Your task to perform on an android device: allow cookies in the chrome app Image 0: 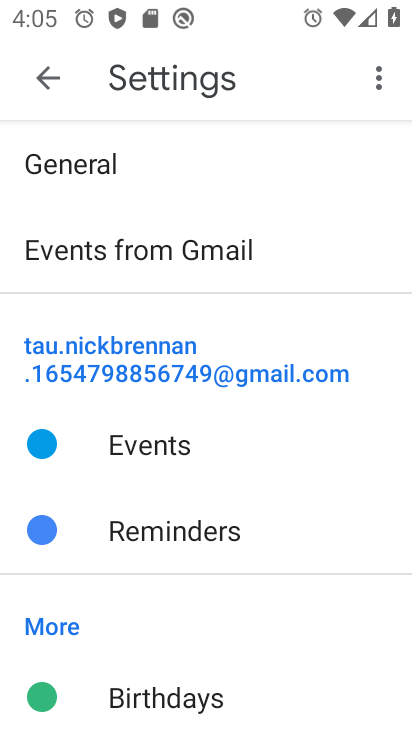
Step 0: press home button
Your task to perform on an android device: allow cookies in the chrome app Image 1: 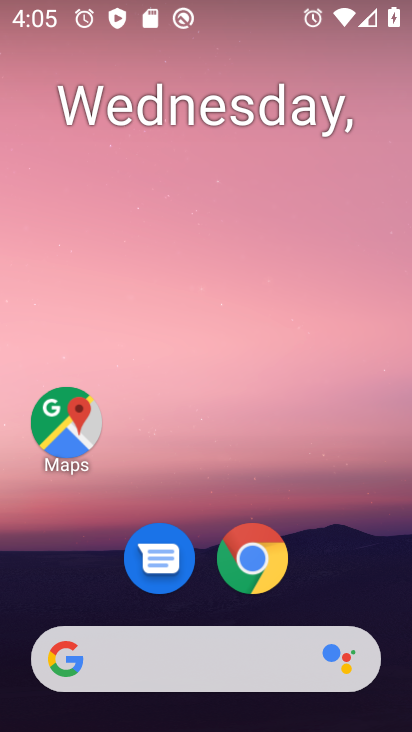
Step 1: click (254, 566)
Your task to perform on an android device: allow cookies in the chrome app Image 2: 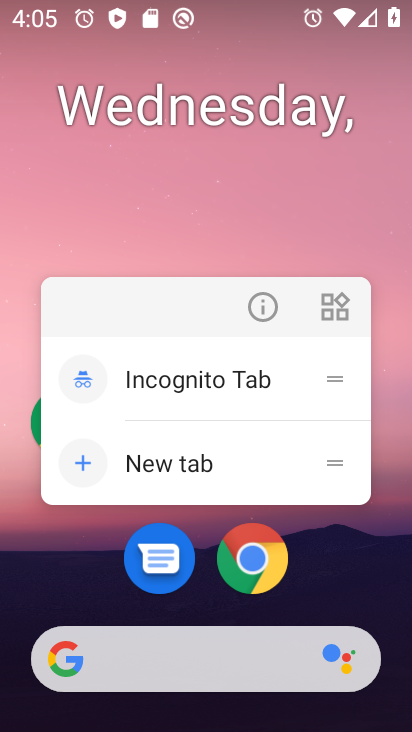
Step 2: click (254, 566)
Your task to perform on an android device: allow cookies in the chrome app Image 3: 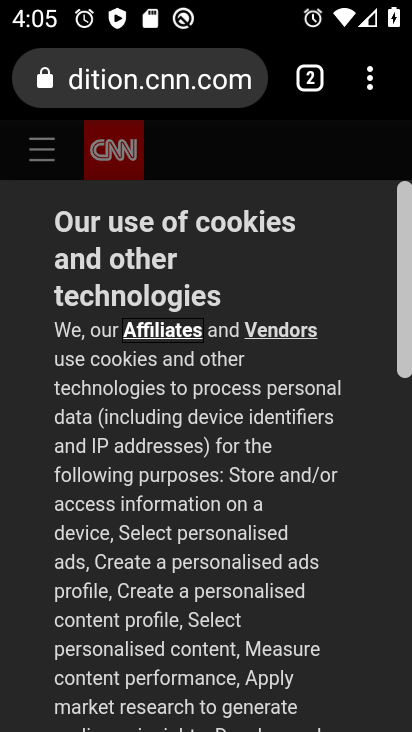
Step 3: click (373, 80)
Your task to perform on an android device: allow cookies in the chrome app Image 4: 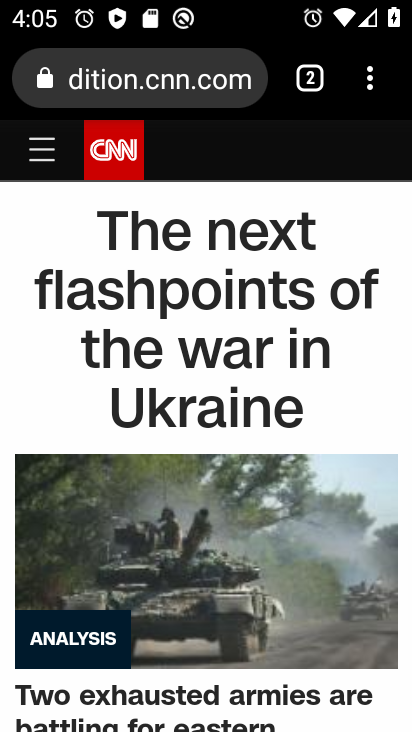
Step 4: click (373, 80)
Your task to perform on an android device: allow cookies in the chrome app Image 5: 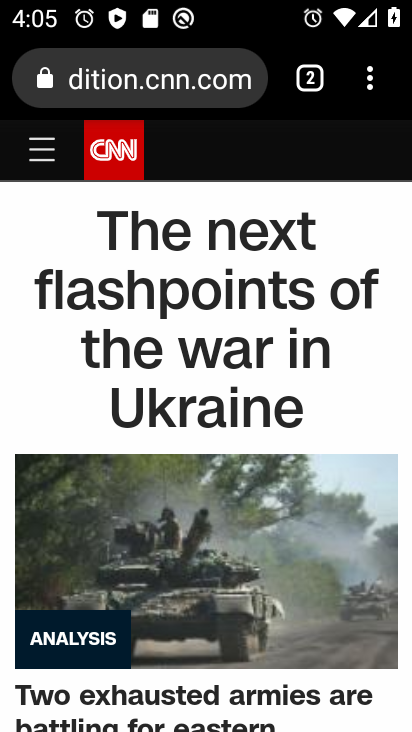
Step 5: click (369, 80)
Your task to perform on an android device: allow cookies in the chrome app Image 6: 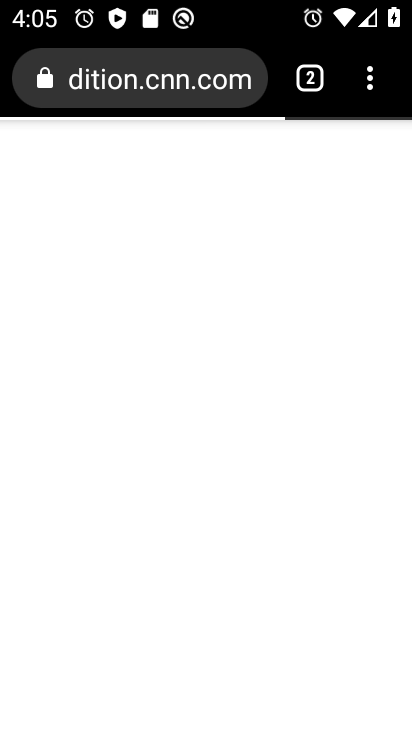
Step 6: click (365, 82)
Your task to perform on an android device: allow cookies in the chrome app Image 7: 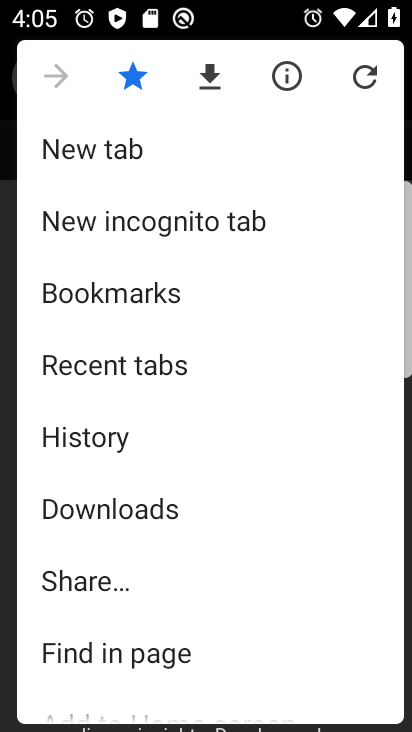
Step 7: drag from (148, 689) to (132, 296)
Your task to perform on an android device: allow cookies in the chrome app Image 8: 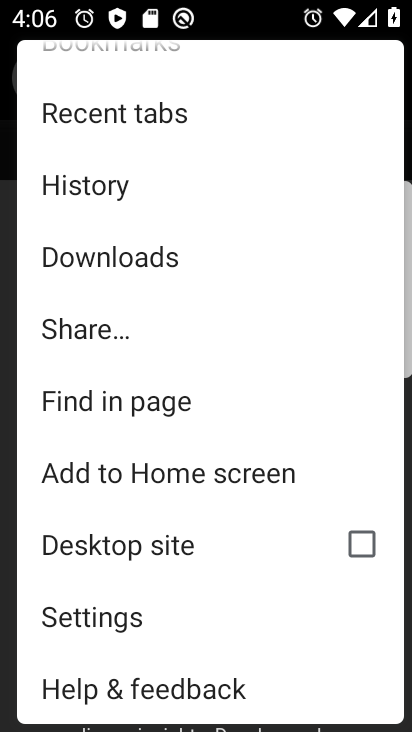
Step 8: click (96, 614)
Your task to perform on an android device: allow cookies in the chrome app Image 9: 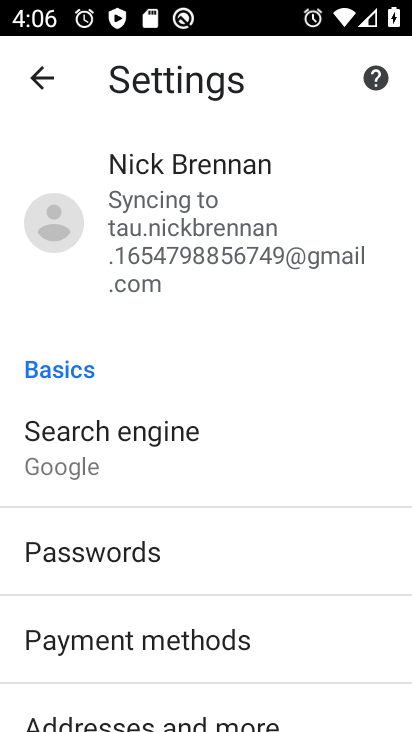
Step 9: drag from (128, 648) to (126, 364)
Your task to perform on an android device: allow cookies in the chrome app Image 10: 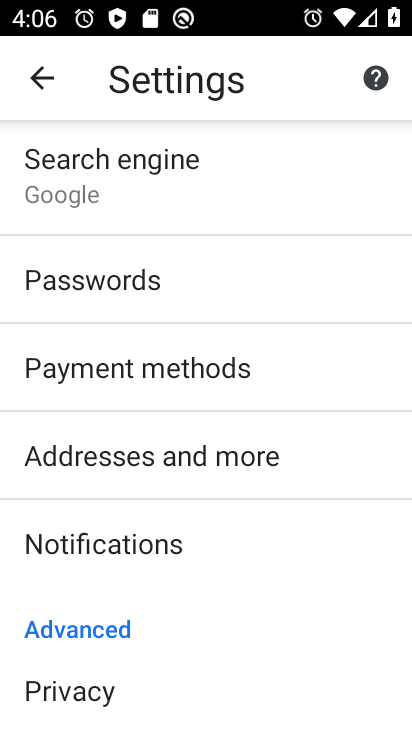
Step 10: drag from (114, 183) to (173, 602)
Your task to perform on an android device: allow cookies in the chrome app Image 11: 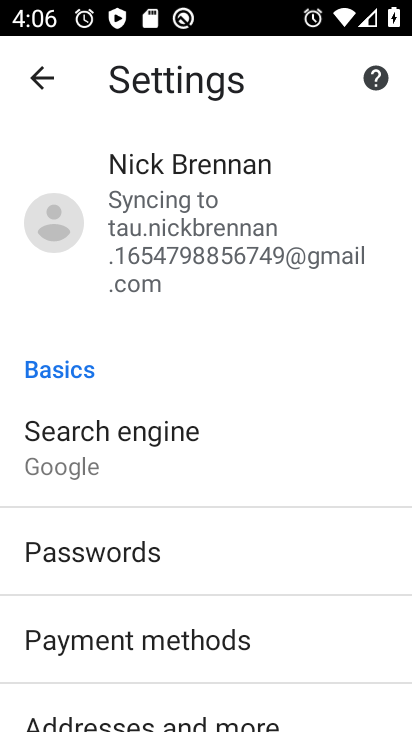
Step 11: drag from (126, 709) to (92, 288)
Your task to perform on an android device: allow cookies in the chrome app Image 12: 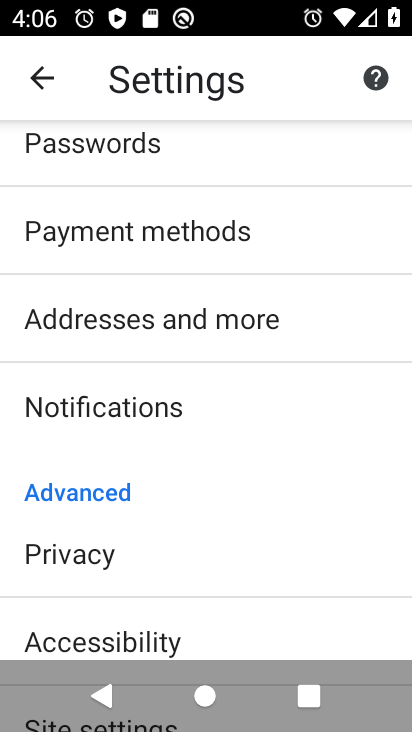
Step 12: drag from (83, 633) to (74, 344)
Your task to perform on an android device: allow cookies in the chrome app Image 13: 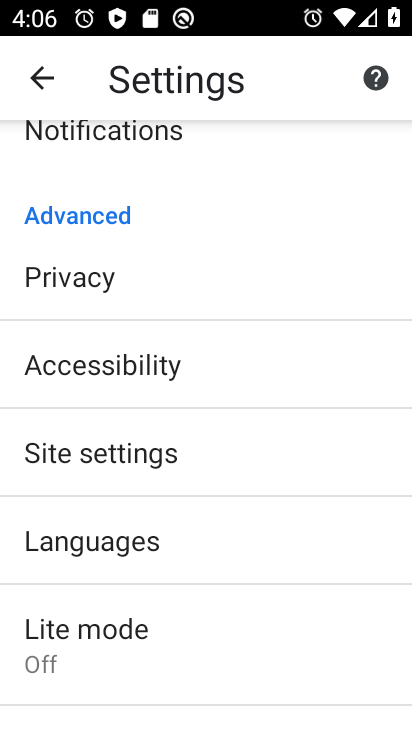
Step 13: click (89, 447)
Your task to perform on an android device: allow cookies in the chrome app Image 14: 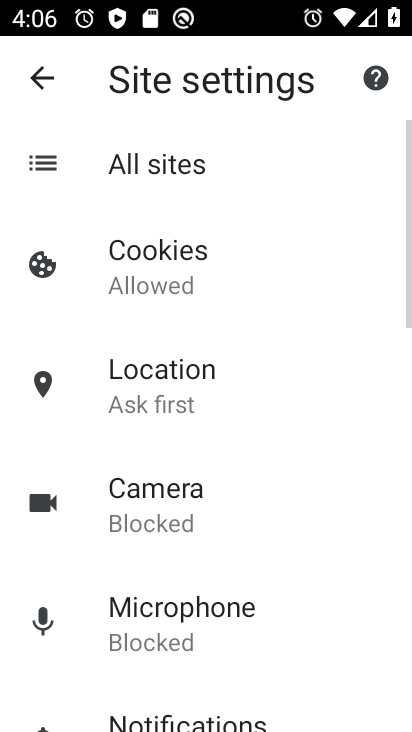
Step 14: click (150, 273)
Your task to perform on an android device: allow cookies in the chrome app Image 15: 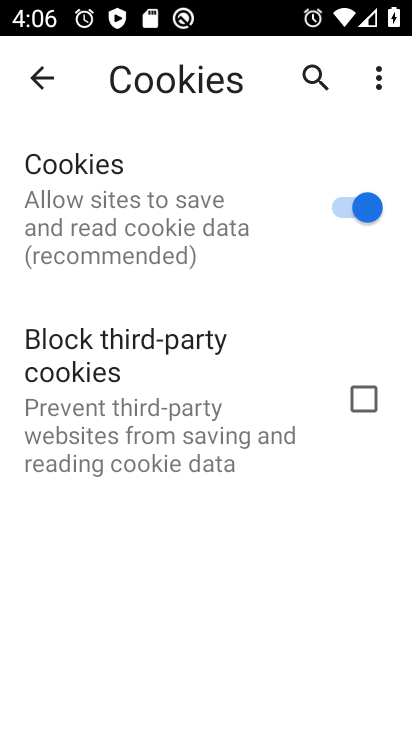
Step 15: task complete